Your task to perform on an android device: Do I have any events tomorrow? Image 0: 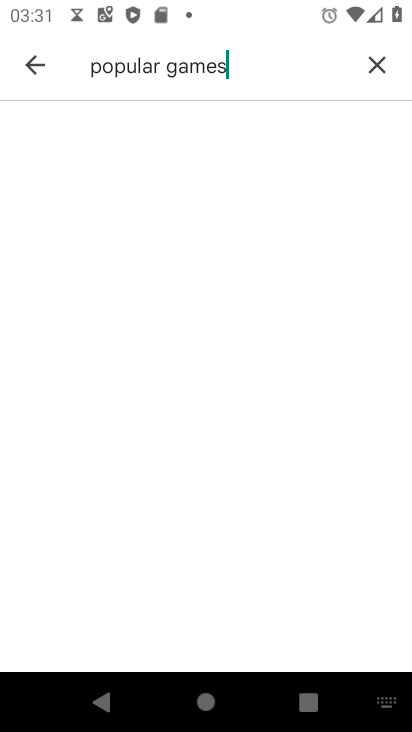
Step 0: press back button
Your task to perform on an android device: Do I have any events tomorrow? Image 1: 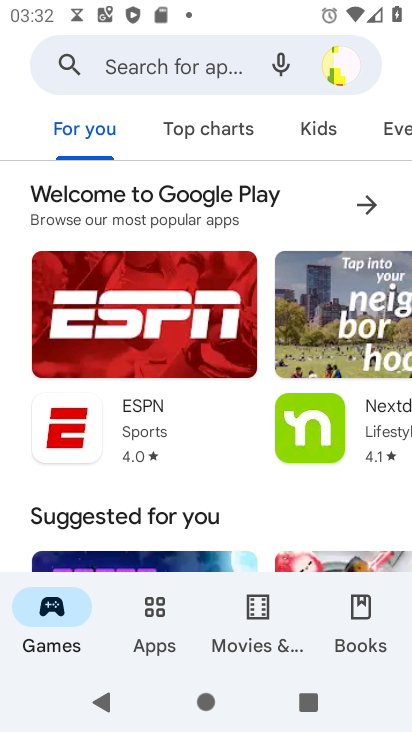
Step 1: press back button
Your task to perform on an android device: Do I have any events tomorrow? Image 2: 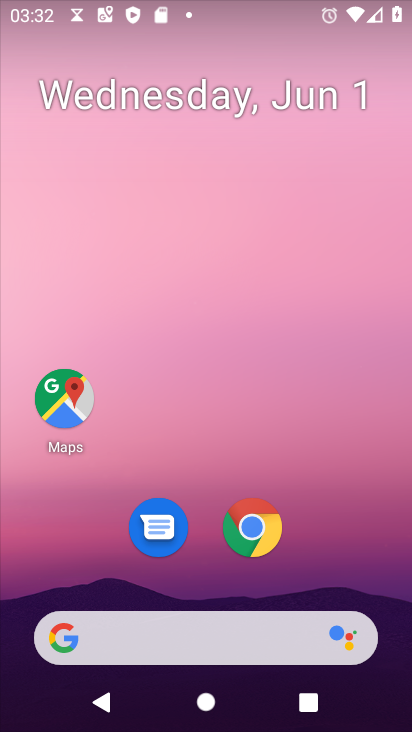
Step 2: drag from (330, 575) to (249, 87)
Your task to perform on an android device: Do I have any events tomorrow? Image 3: 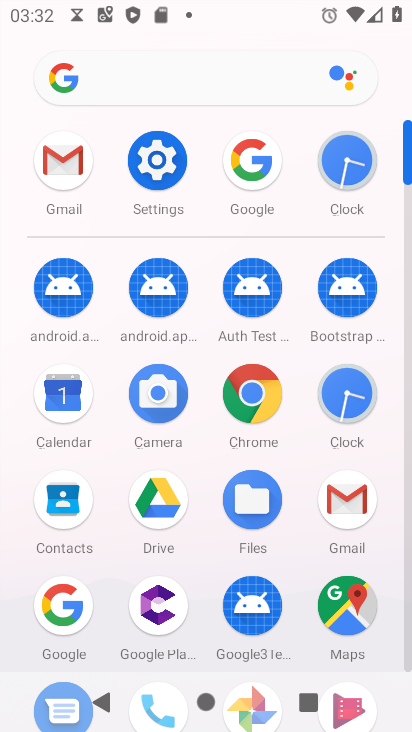
Step 3: click (64, 394)
Your task to perform on an android device: Do I have any events tomorrow? Image 4: 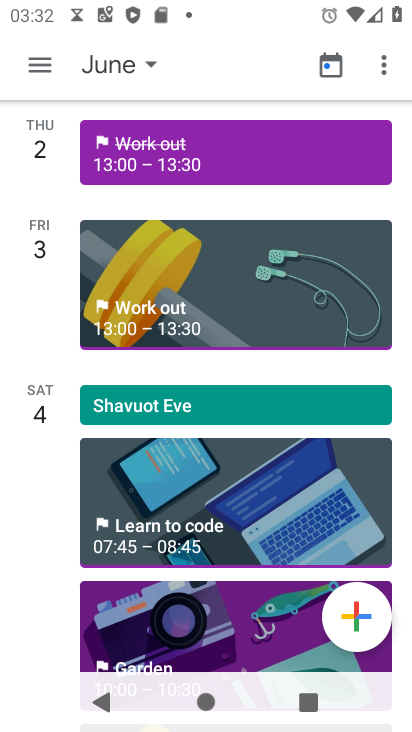
Step 4: click (330, 70)
Your task to perform on an android device: Do I have any events tomorrow? Image 5: 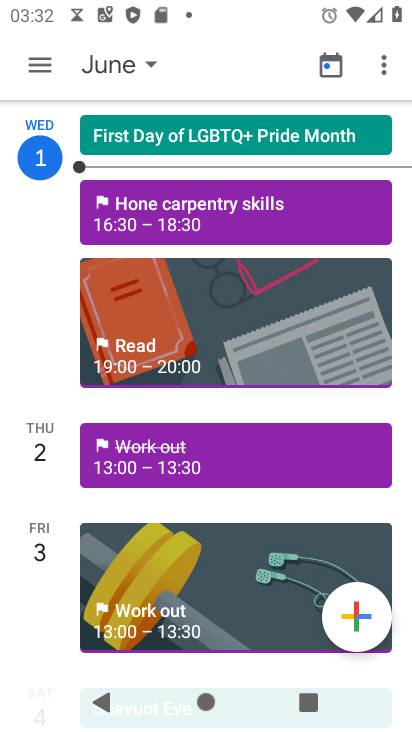
Step 5: click (153, 65)
Your task to perform on an android device: Do I have any events tomorrow? Image 6: 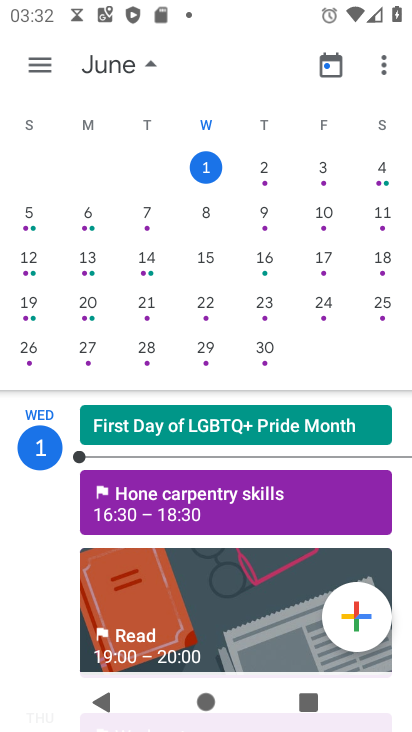
Step 6: click (267, 176)
Your task to perform on an android device: Do I have any events tomorrow? Image 7: 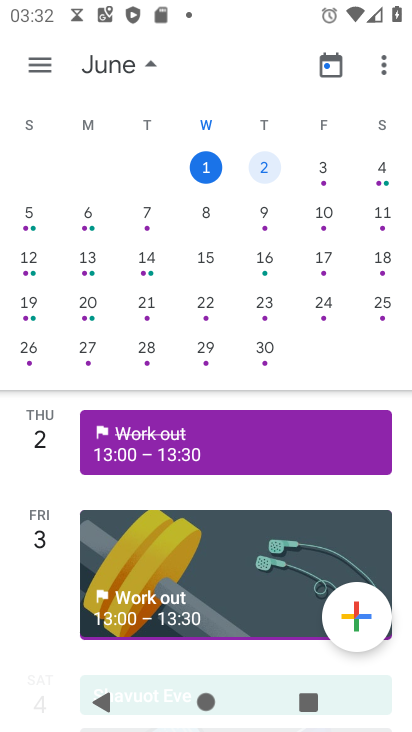
Step 7: click (48, 64)
Your task to perform on an android device: Do I have any events tomorrow? Image 8: 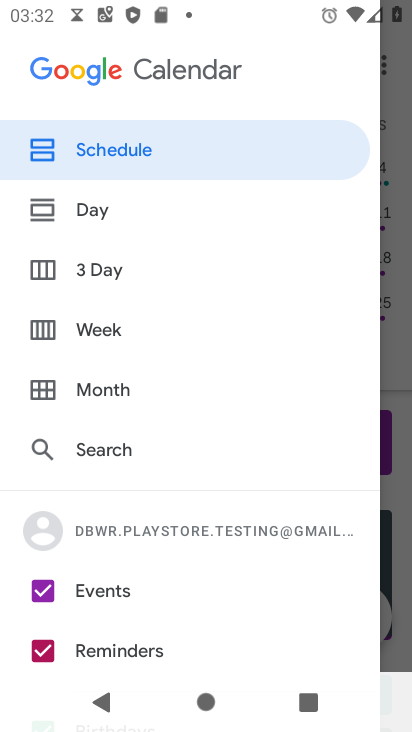
Step 8: click (96, 151)
Your task to perform on an android device: Do I have any events tomorrow? Image 9: 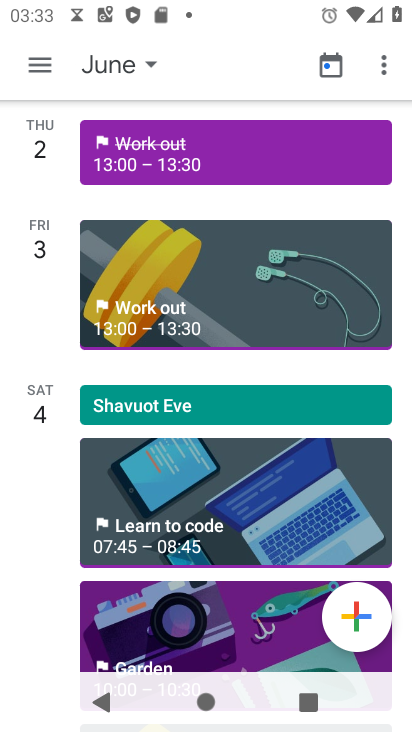
Step 9: task complete